Your task to perform on an android device: Go to location settings Image 0: 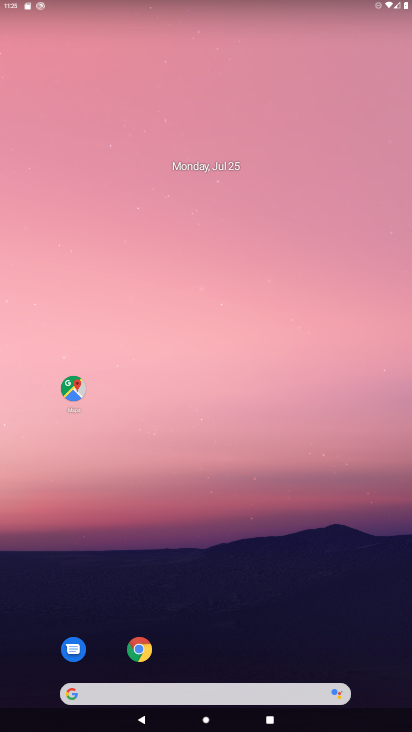
Step 0: drag from (386, 676) to (366, 176)
Your task to perform on an android device: Go to location settings Image 1: 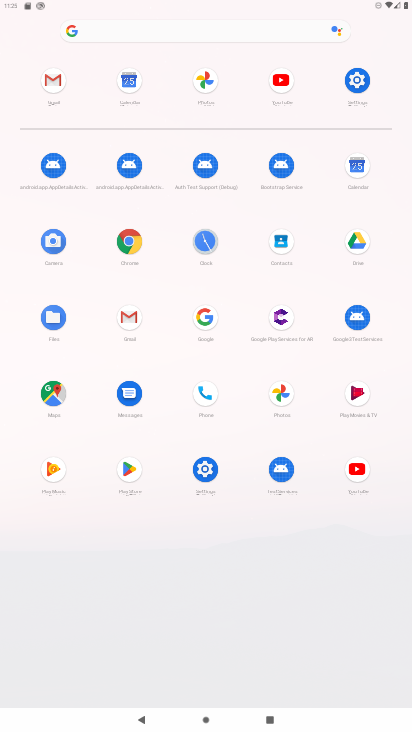
Step 1: click (204, 469)
Your task to perform on an android device: Go to location settings Image 2: 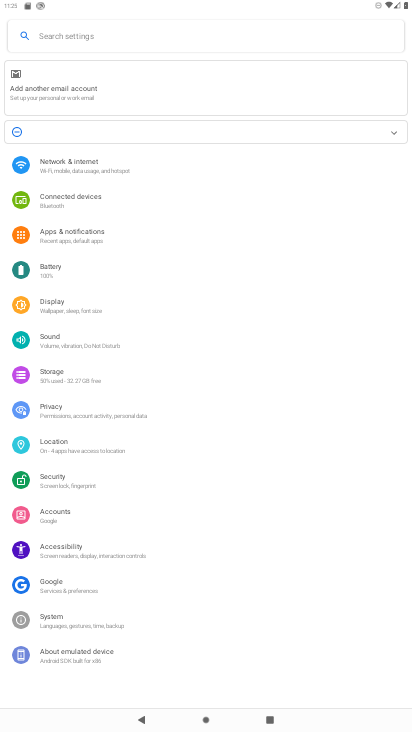
Step 2: click (49, 445)
Your task to perform on an android device: Go to location settings Image 3: 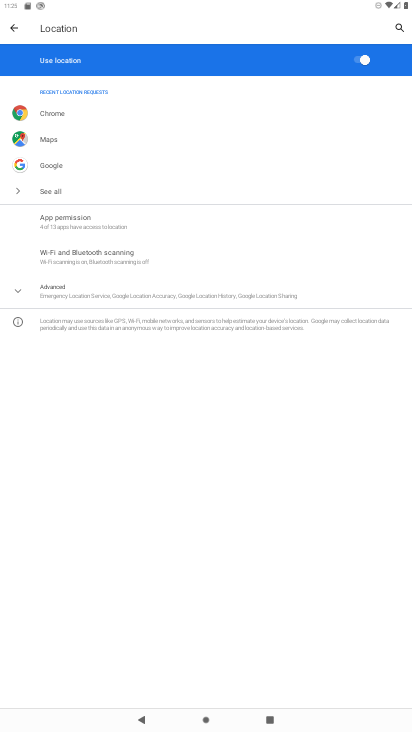
Step 3: click (16, 291)
Your task to perform on an android device: Go to location settings Image 4: 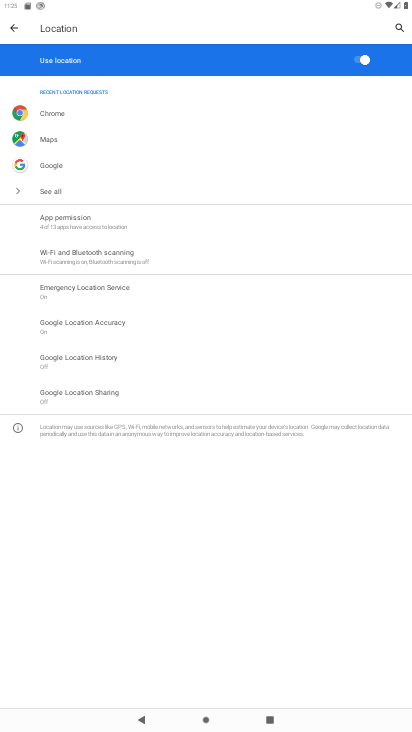
Step 4: task complete